Your task to perform on an android device: change keyboard looks Image 0: 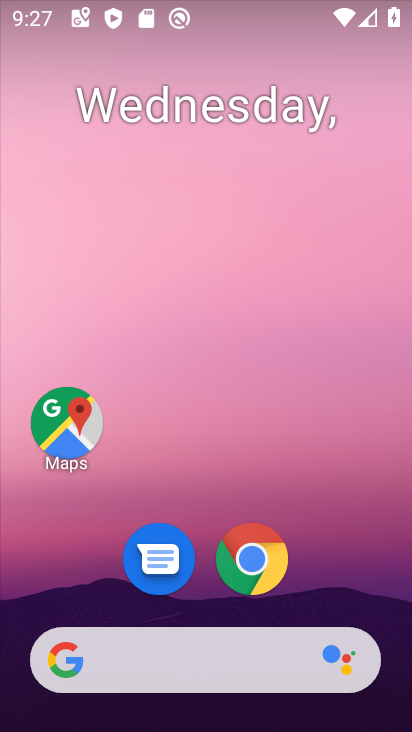
Step 0: drag from (330, 581) to (120, 40)
Your task to perform on an android device: change keyboard looks Image 1: 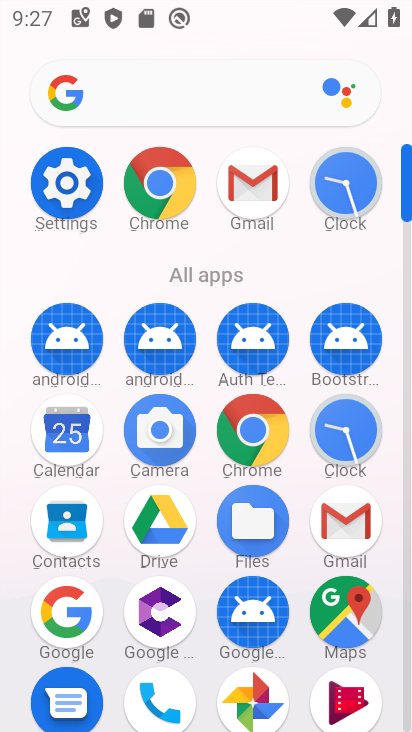
Step 1: click (50, 191)
Your task to perform on an android device: change keyboard looks Image 2: 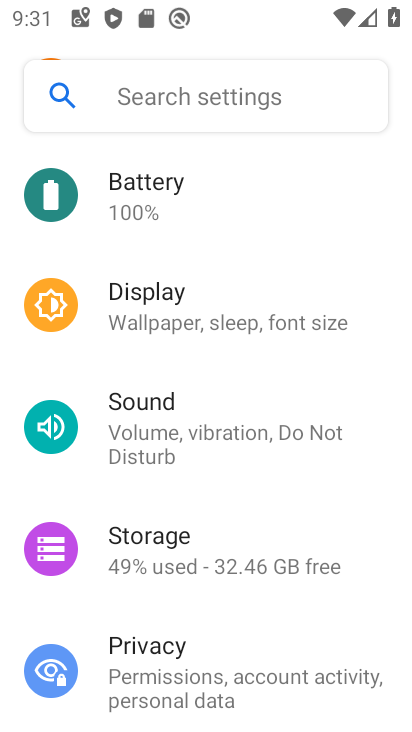
Step 2: drag from (247, 689) to (181, 17)
Your task to perform on an android device: change keyboard looks Image 3: 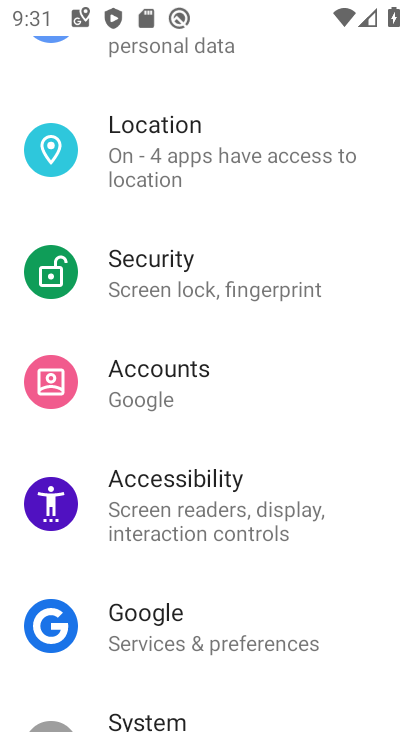
Step 3: click (201, 704)
Your task to perform on an android device: change keyboard looks Image 4: 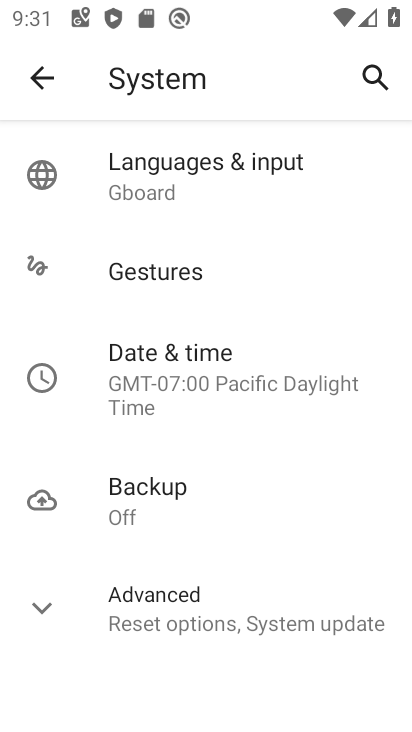
Step 4: click (167, 160)
Your task to perform on an android device: change keyboard looks Image 5: 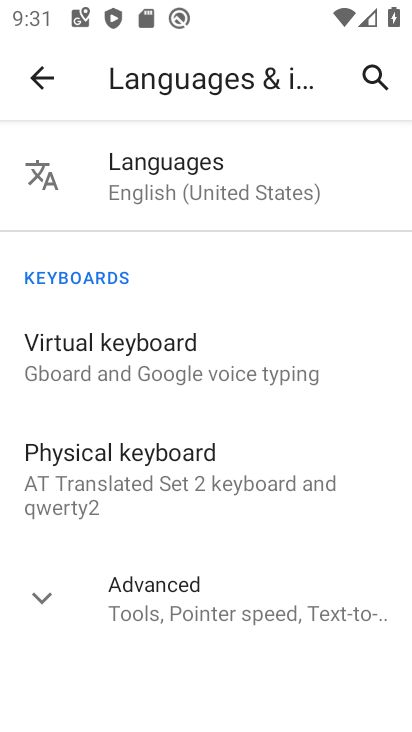
Step 5: click (113, 368)
Your task to perform on an android device: change keyboard looks Image 6: 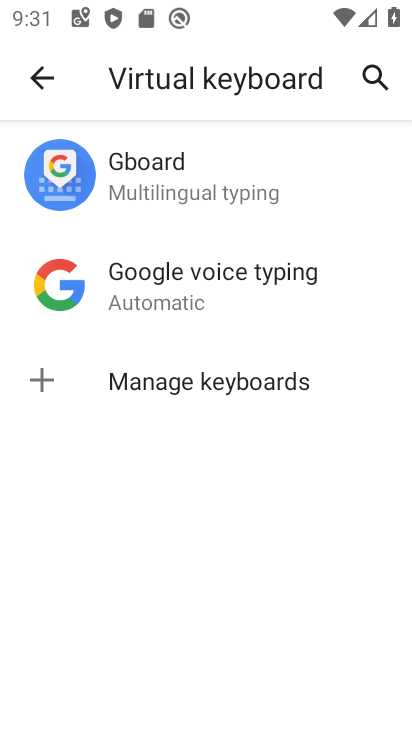
Step 6: click (126, 169)
Your task to perform on an android device: change keyboard looks Image 7: 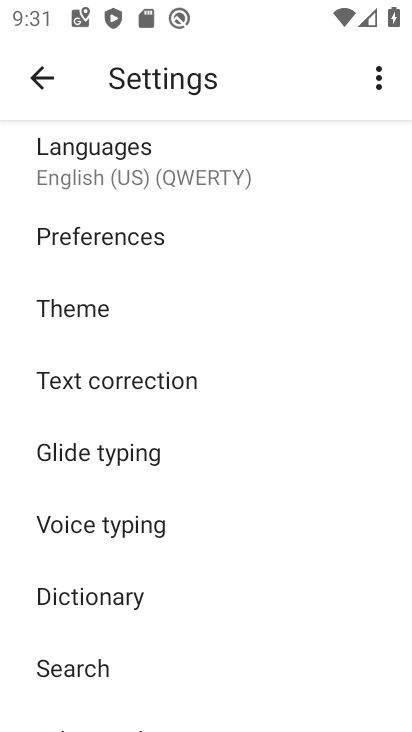
Step 7: click (118, 315)
Your task to perform on an android device: change keyboard looks Image 8: 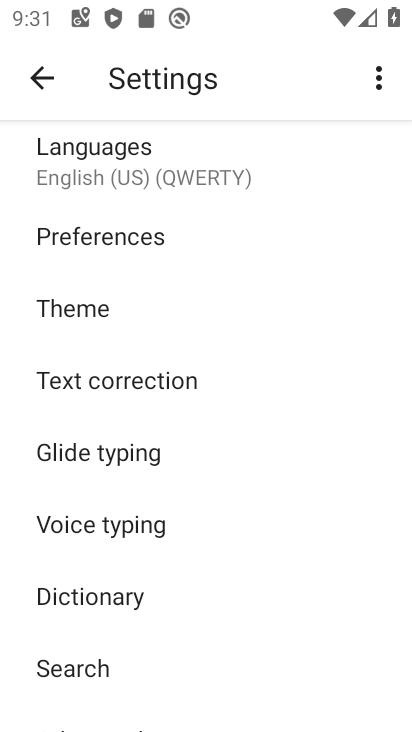
Step 8: click (118, 315)
Your task to perform on an android device: change keyboard looks Image 9: 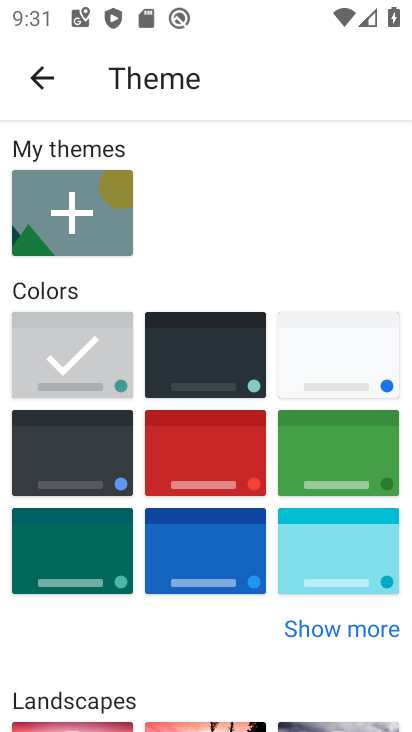
Step 9: click (340, 473)
Your task to perform on an android device: change keyboard looks Image 10: 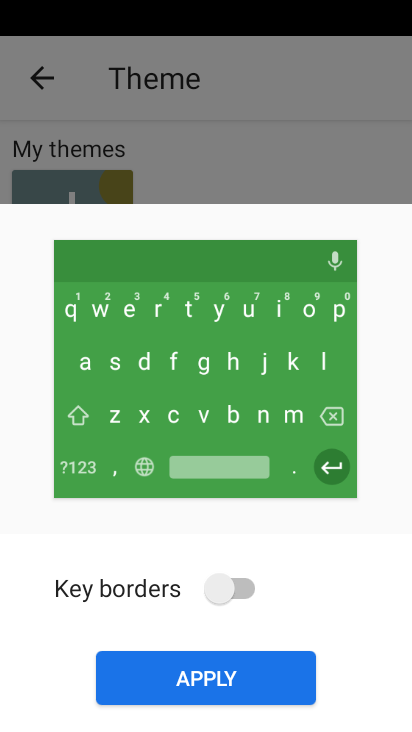
Step 10: click (223, 694)
Your task to perform on an android device: change keyboard looks Image 11: 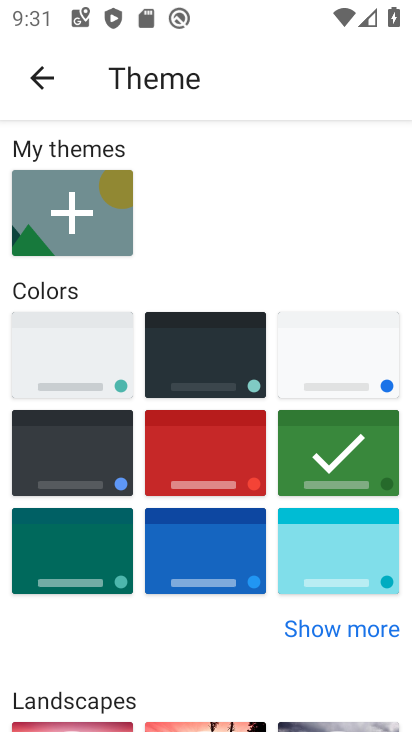
Step 11: task complete